Your task to perform on an android device: delete location history Image 0: 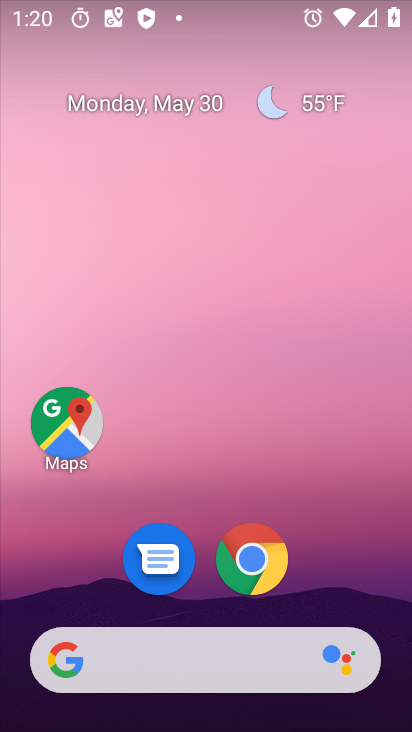
Step 0: drag from (192, 584) to (267, 28)
Your task to perform on an android device: delete location history Image 1: 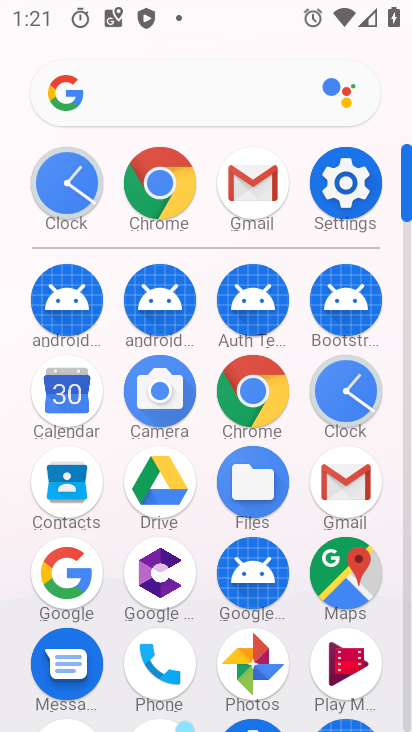
Step 1: click (343, 550)
Your task to perform on an android device: delete location history Image 2: 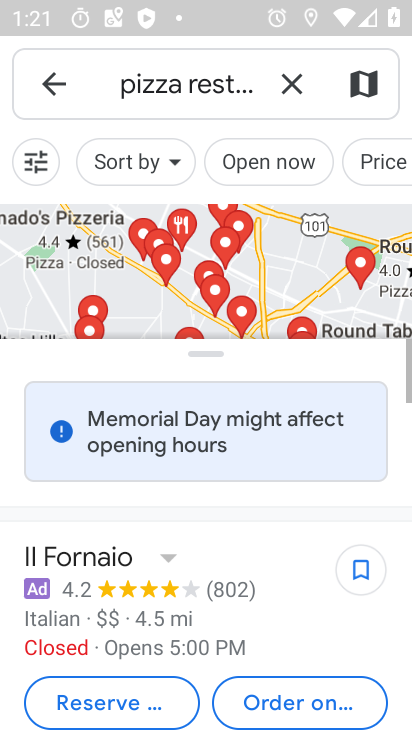
Step 2: click (65, 77)
Your task to perform on an android device: delete location history Image 3: 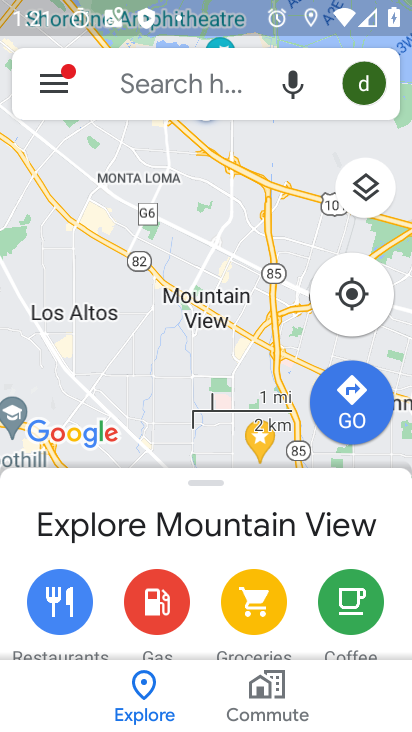
Step 3: click (44, 70)
Your task to perform on an android device: delete location history Image 4: 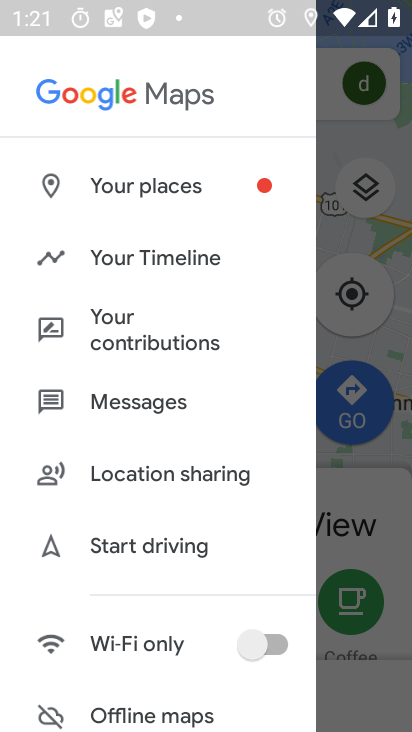
Step 4: click (152, 258)
Your task to perform on an android device: delete location history Image 5: 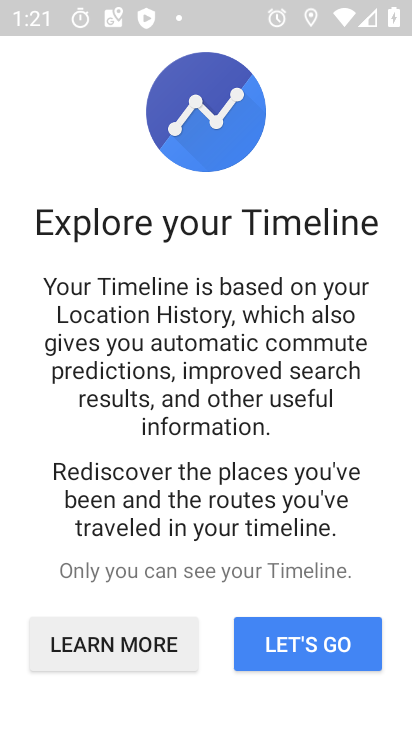
Step 5: click (330, 646)
Your task to perform on an android device: delete location history Image 6: 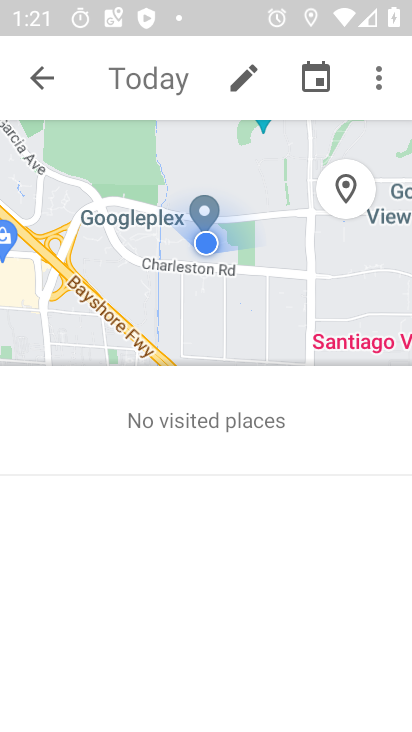
Step 6: click (376, 80)
Your task to perform on an android device: delete location history Image 7: 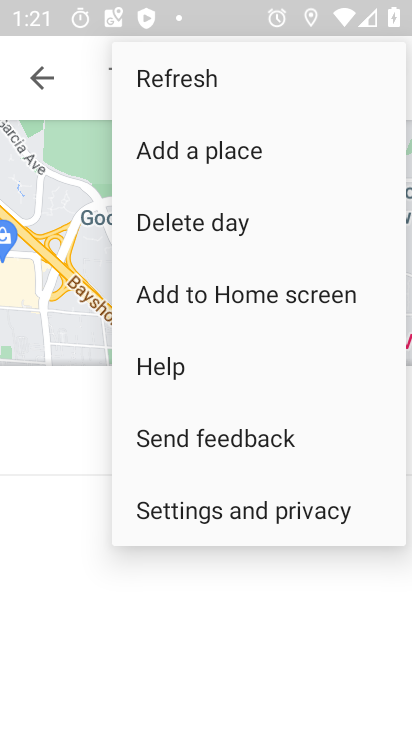
Step 7: click (173, 504)
Your task to perform on an android device: delete location history Image 8: 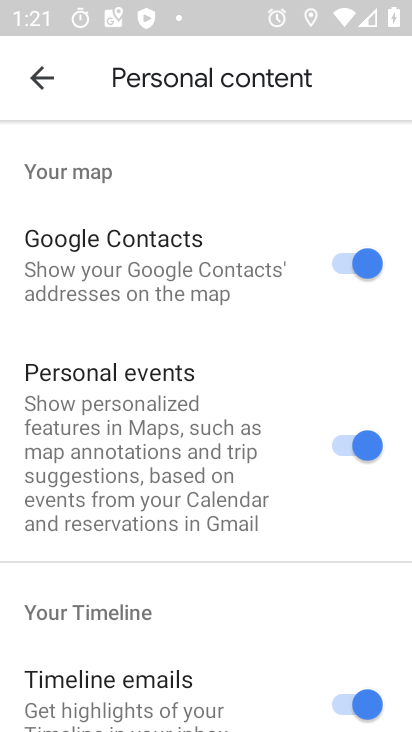
Step 8: drag from (179, 677) to (278, 62)
Your task to perform on an android device: delete location history Image 9: 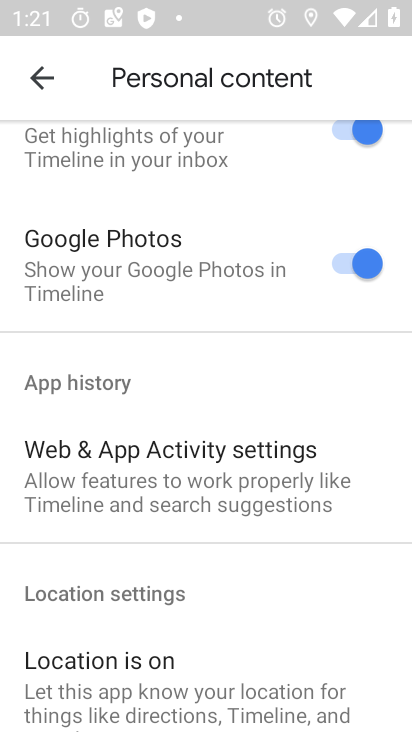
Step 9: drag from (171, 655) to (275, 92)
Your task to perform on an android device: delete location history Image 10: 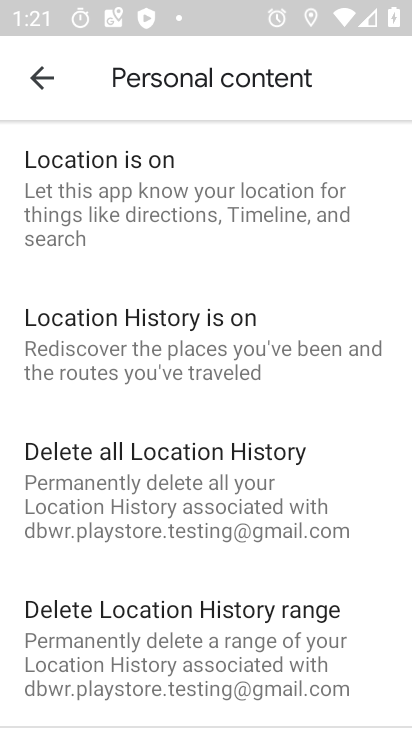
Step 10: click (153, 479)
Your task to perform on an android device: delete location history Image 11: 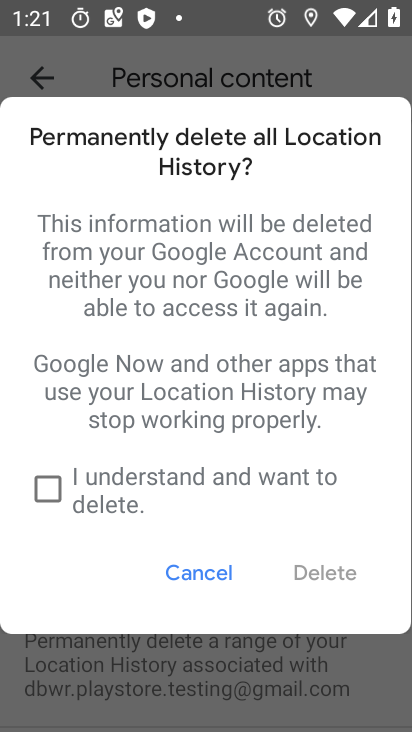
Step 11: click (47, 484)
Your task to perform on an android device: delete location history Image 12: 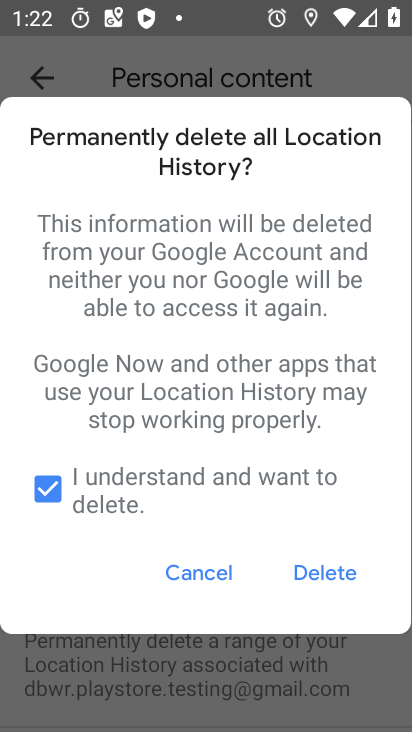
Step 12: click (337, 581)
Your task to perform on an android device: delete location history Image 13: 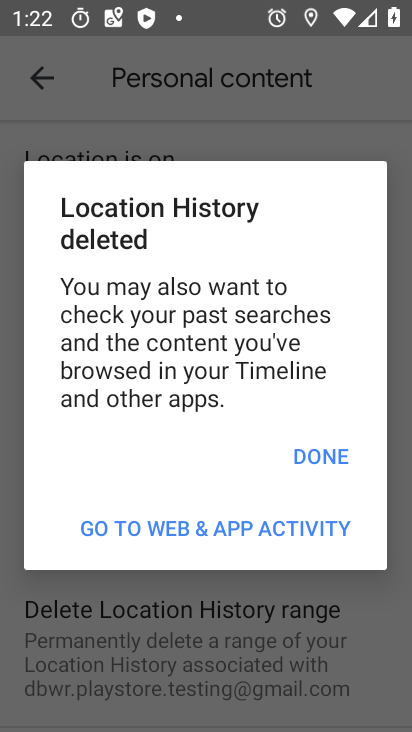
Step 13: click (316, 452)
Your task to perform on an android device: delete location history Image 14: 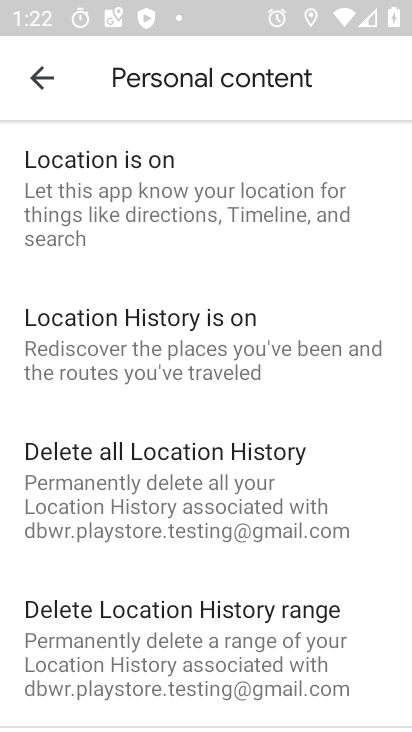
Step 14: task complete